Your task to perform on an android device: turn on location history Image 0: 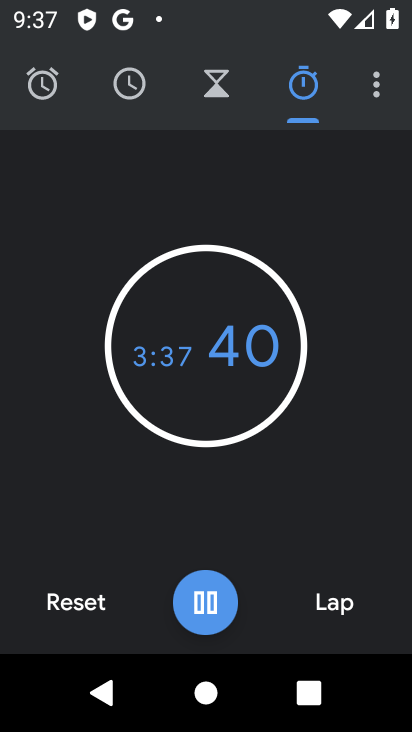
Step 0: press back button
Your task to perform on an android device: turn on location history Image 1: 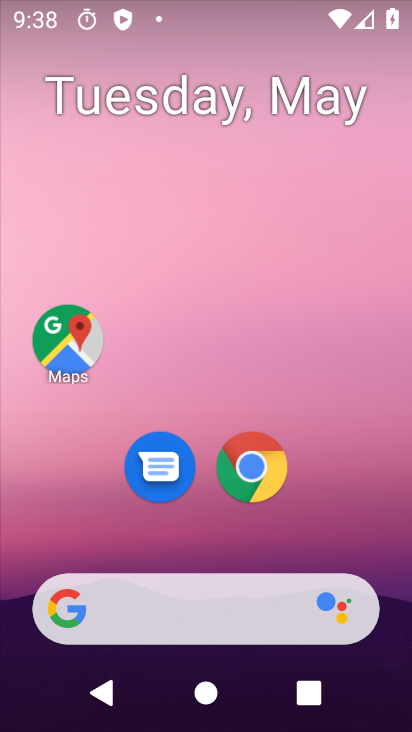
Step 1: drag from (376, 481) to (307, 22)
Your task to perform on an android device: turn on location history Image 2: 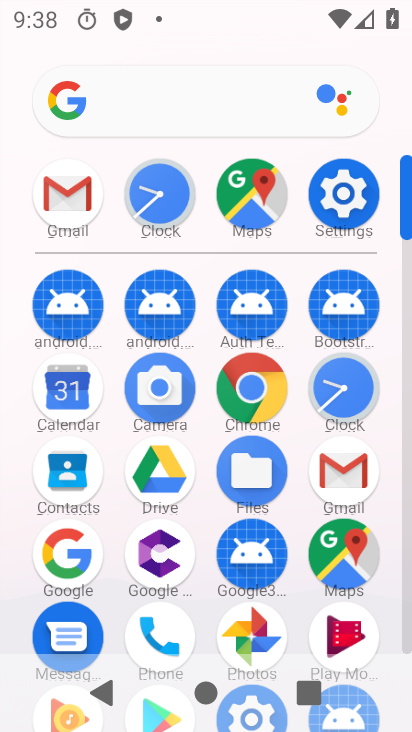
Step 2: drag from (11, 531) to (13, 213)
Your task to perform on an android device: turn on location history Image 3: 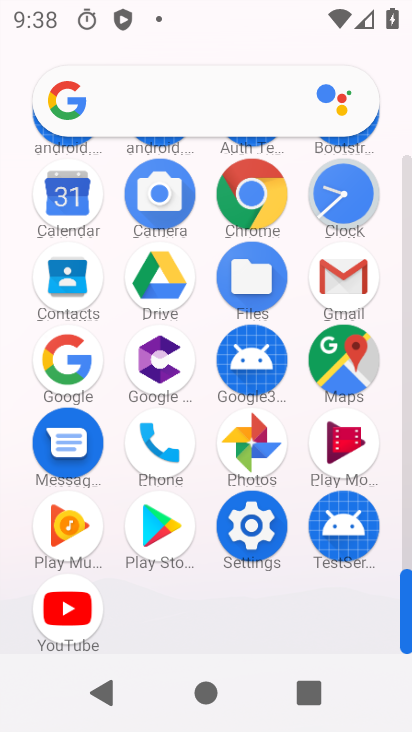
Step 3: click (252, 522)
Your task to perform on an android device: turn on location history Image 4: 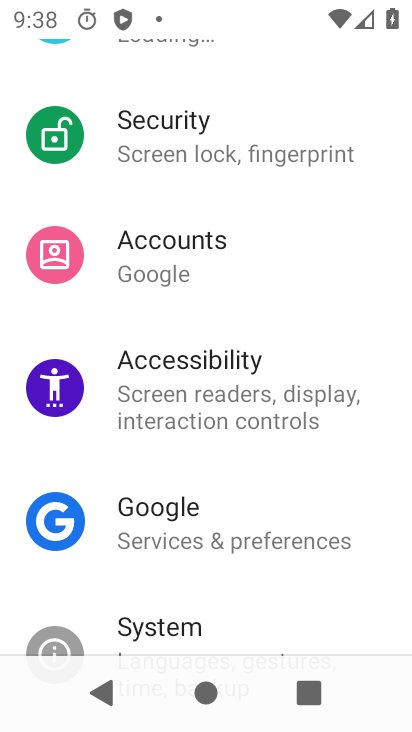
Step 4: drag from (302, 527) to (277, 111)
Your task to perform on an android device: turn on location history Image 5: 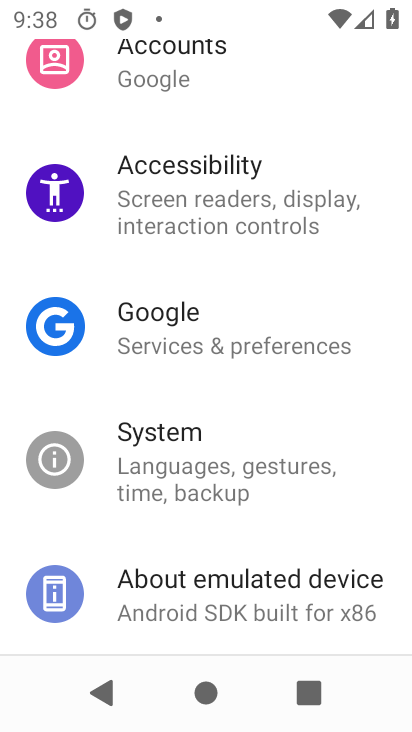
Step 5: drag from (294, 519) to (277, 136)
Your task to perform on an android device: turn on location history Image 6: 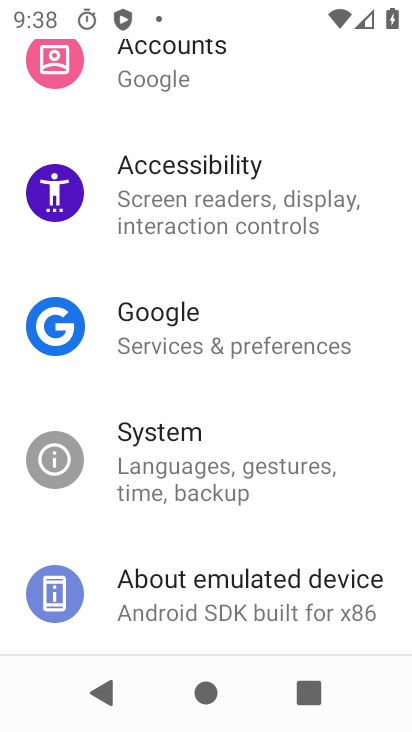
Step 6: drag from (272, 529) to (269, 178)
Your task to perform on an android device: turn on location history Image 7: 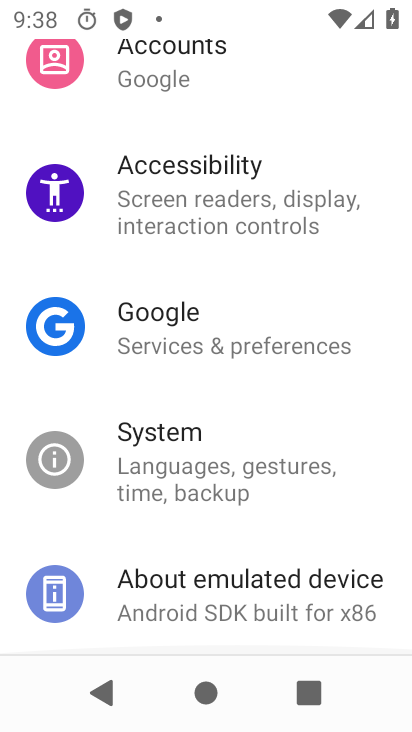
Step 7: drag from (293, 188) to (316, 608)
Your task to perform on an android device: turn on location history Image 8: 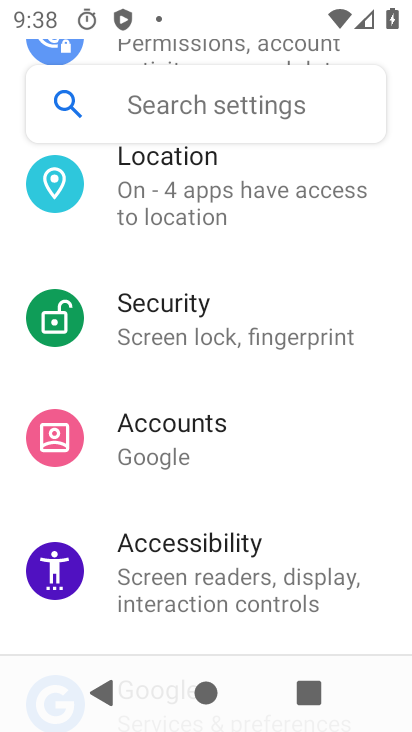
Step 8: drag from (329, 247) to (316, 522)
Your task to perform on an android device: turn on location history Image 9: 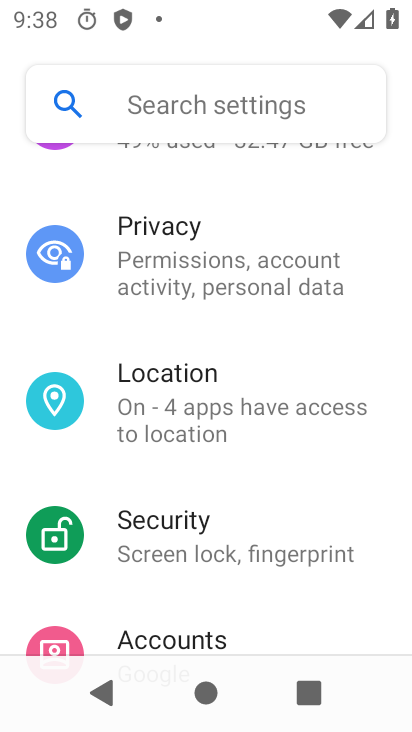
Step 9: click (238, 412)
Your task to perform on an android device: turn on location history Image 10: 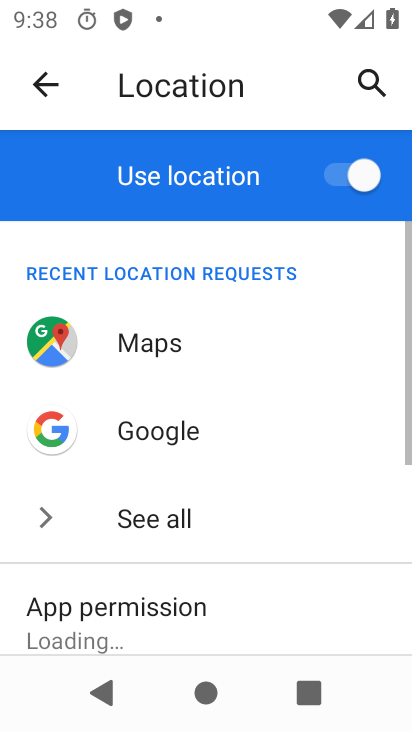
Step 10: drag from (276, 569) to (273, 111)
Your task to perform on an android device: turn on location history Image 11: 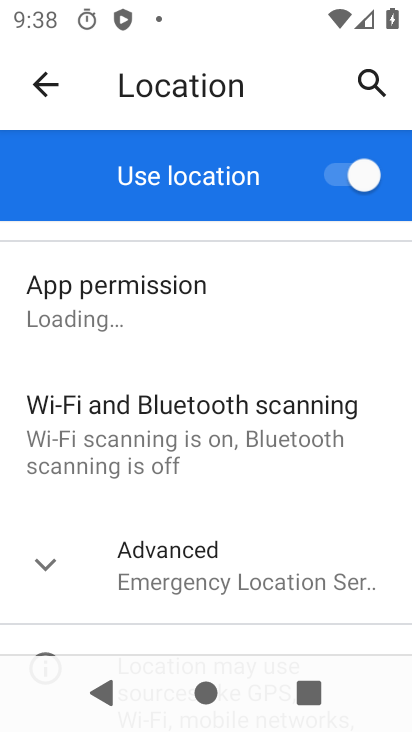
Step 11: drag from (243, 545) to (240, 205)
Your task to perform on an android device: turn on location history Image 12: 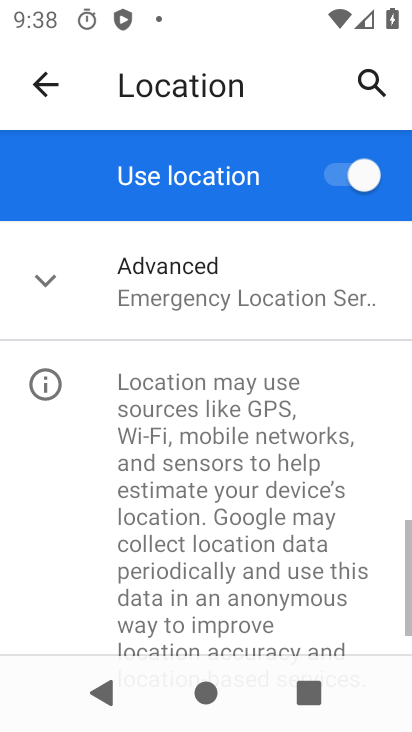
Step 12: click (71, 270)
Your task to perform on an android device: turn on location history Image 13: 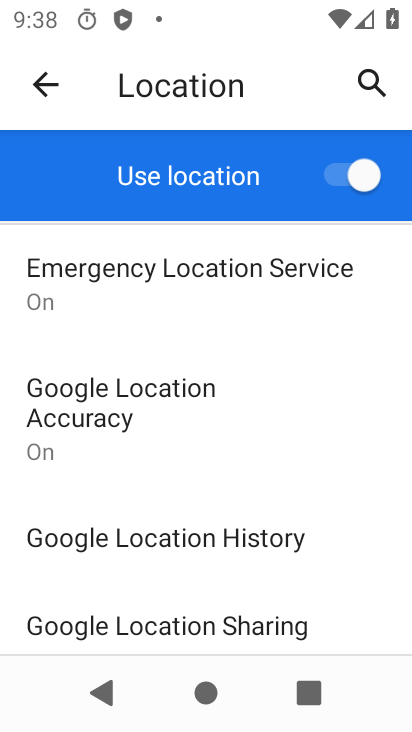
Step 13: drag from (256, 581) to (267, 170)
Your task to perform on an android device: turn on location history Image 14: 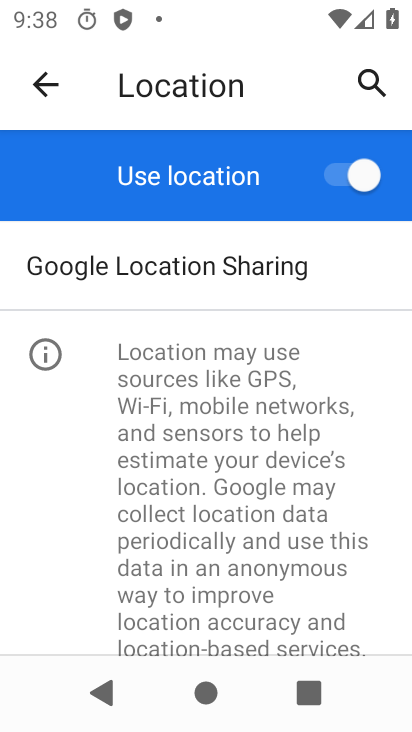
Step 14: drag from (244, 331) to (230, 637)
Your task to perform on an android device: turn on location history Image 15: 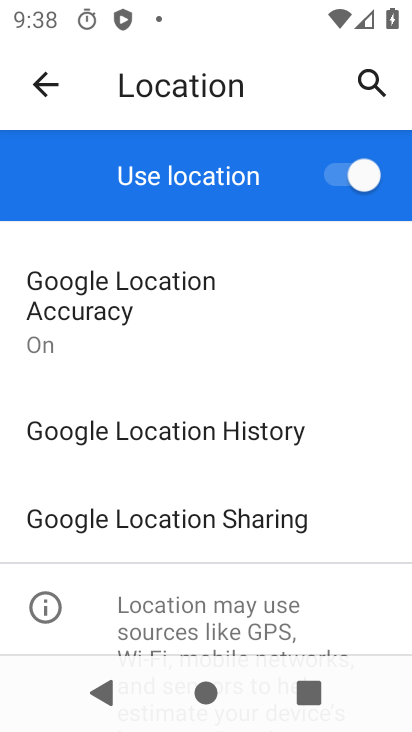
Step 15: click (269, 430)
Your task to perform on an android device: turn on location history Image 16: 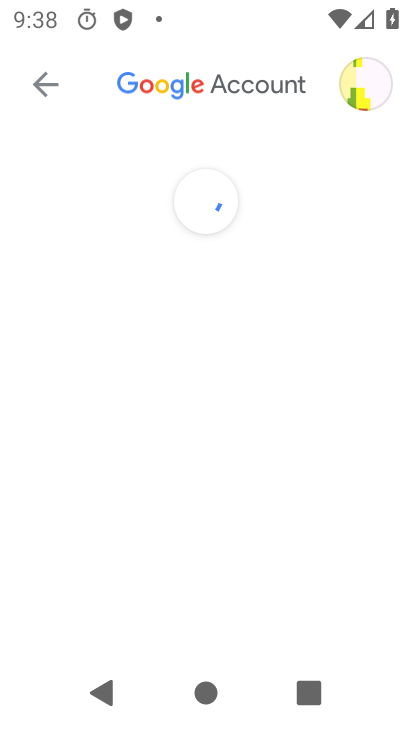
Step 16: task complete